Your task to perform on an android device: open device folders in google photos Image 0: 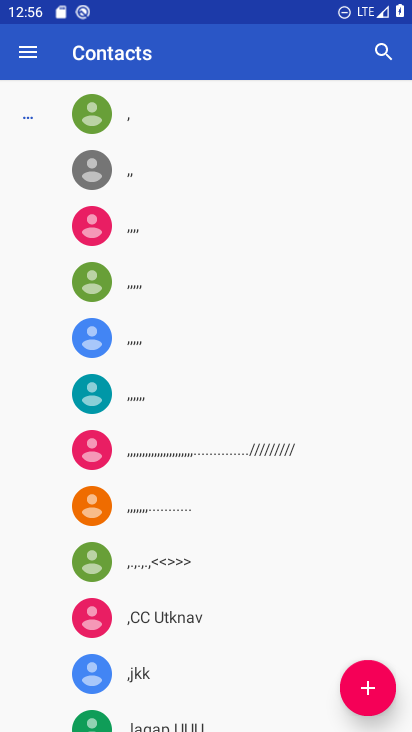
Step 0: press home button
Your task to perform on an android device: open device folders in google photos Image 1: 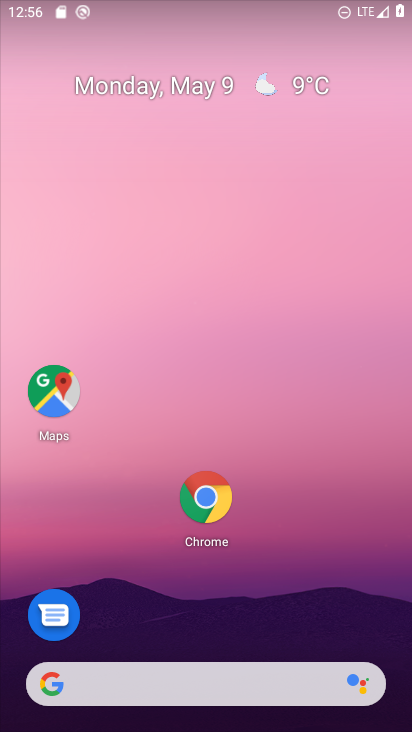
Step 1: drag from (257, 636) to (263, 64)
Your task to perform on an android device: open device folders in google photos Image 2: 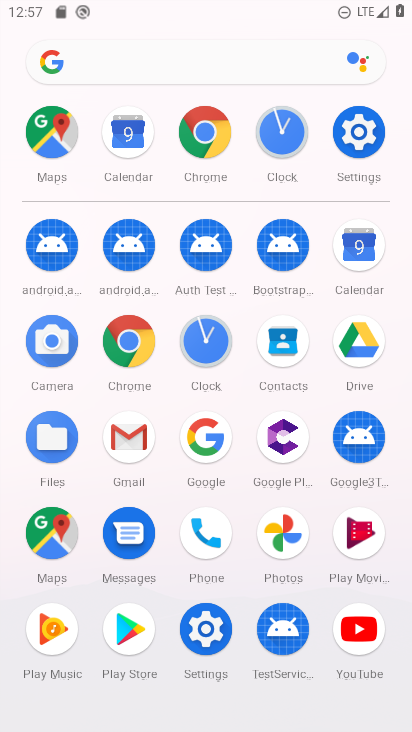
Step 2: click (290, 533)
Your task to perform on an android device: open device folders in google photos Image 3: 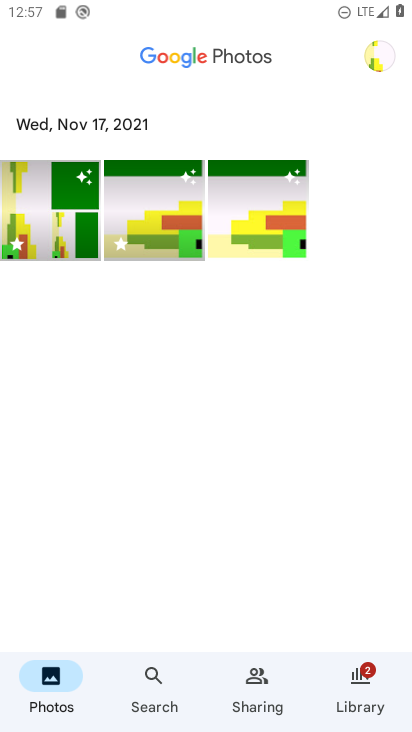
Step 3: click (372, 708)
Your task to perform on an android device: open device folders in google photos Image 4: 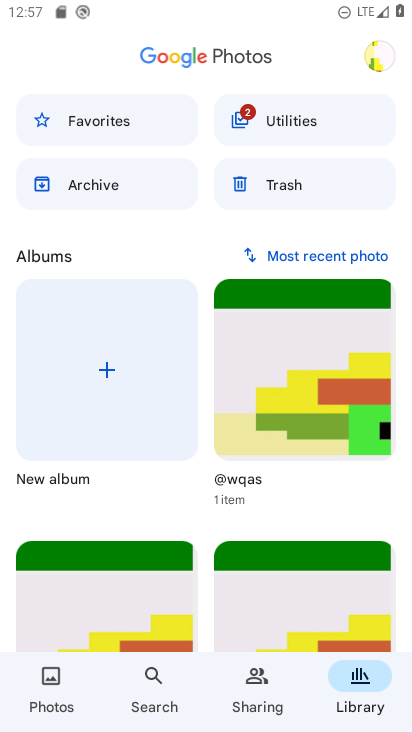
Step 4: task complete